Your task to perform on an android device: turn smart compose on in the gmail app Image 0: 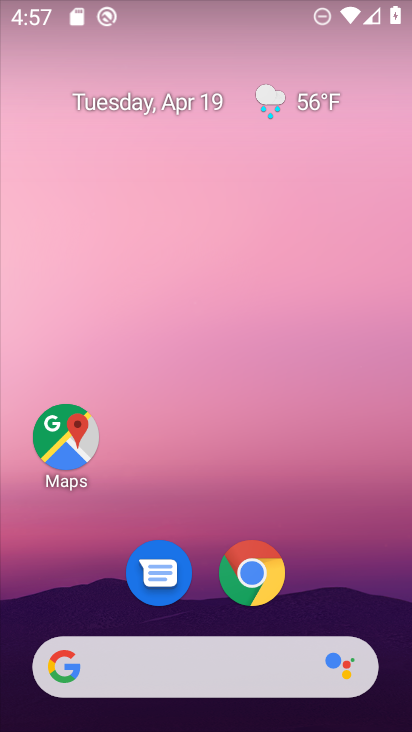
Step 0: drag from (394, 620) to (386, 9)
Your task to perform on an android device: turn smart compose on in the gmail app Image 1: 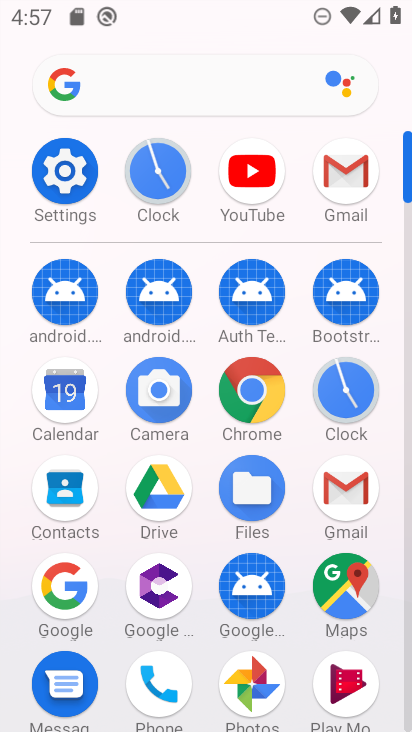
Step 1: click (343, 174)
Your task to perform on an android device: turn smart compose on in the gmail app Image 2: 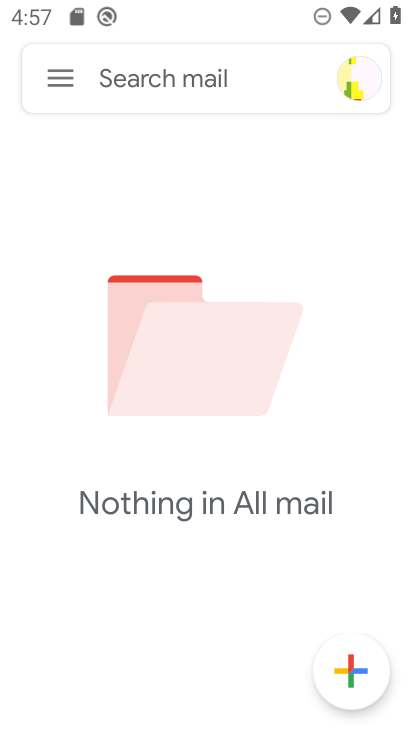
Step 2: click (65, 80)
Your task to perform on an android device: turn smart compose on in the gmail app Image 3: 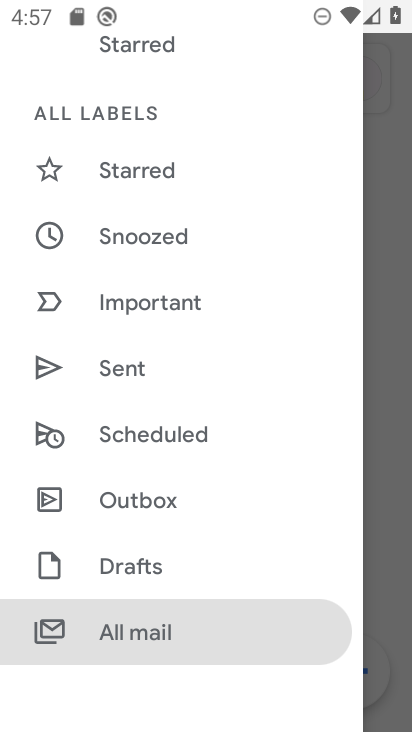
Step 3: drag from (255, 570) to (223, 161)
Your task to perform on an android device: turn smart compose on in the gmail app Image 4: 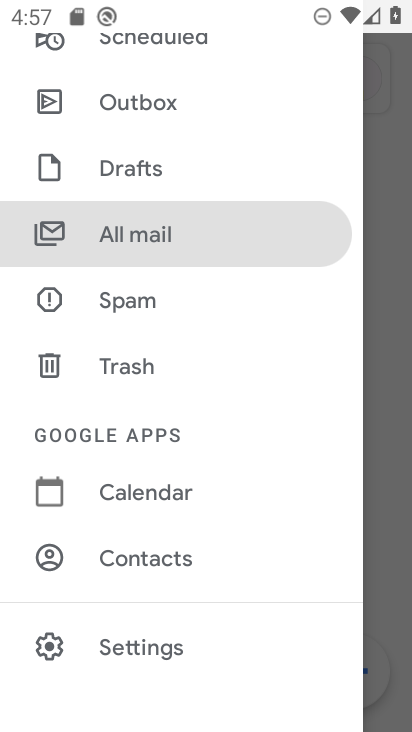
Step 4: click (137, 650)
Your task to perform on an android device: turn smart compose on in the gmail app Image 5: 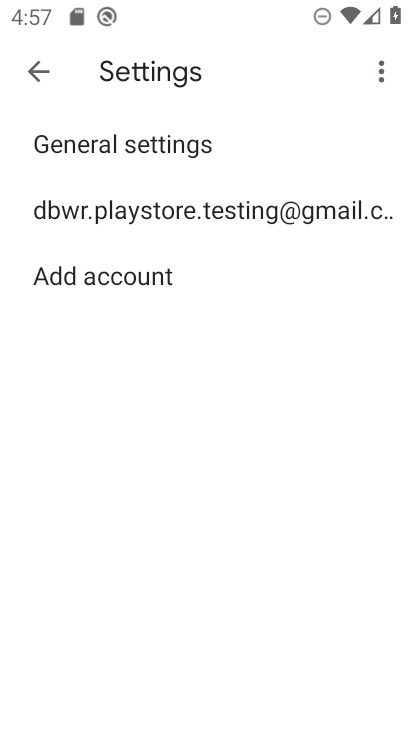
Step 5: click (116, 212)
Your task to perform on an android device: turn smart compose on in the gmail app Image 6: 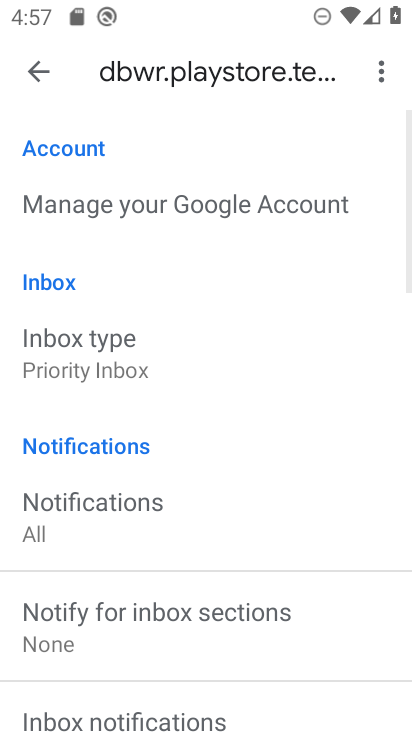
Step 6: task complete